Your task to perform on an android device: turn off smart reply in the gmail app Image 0: 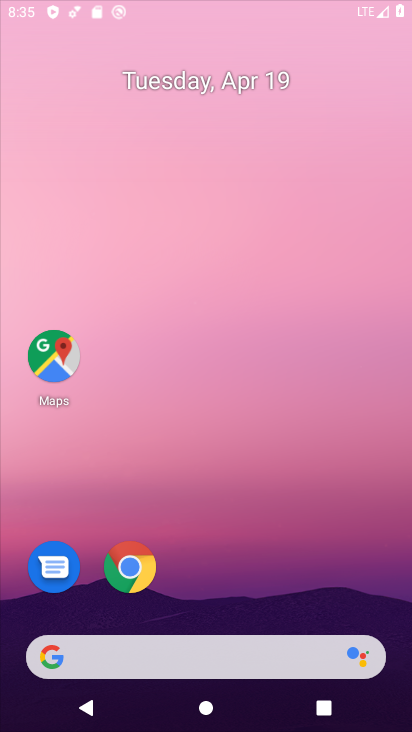
Step 0: drag from (247, 587) to (171, 60)
Your task to perform on an android device: turn off smart reply in the gmail app Image 1: 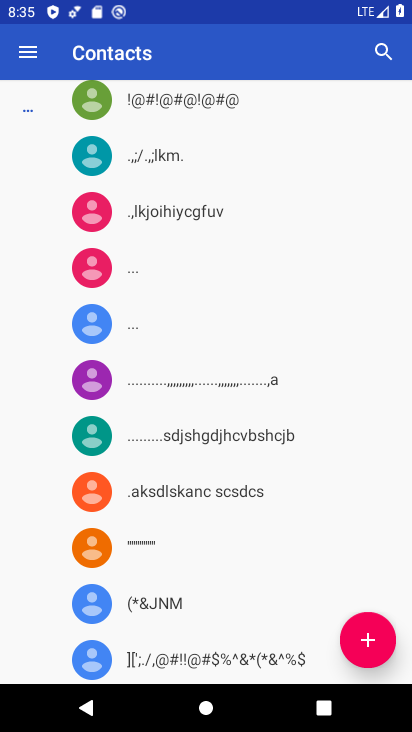
Step 1: press home button
Your task to perform on an android device: turn off smart reply in the gmail app Image 2: 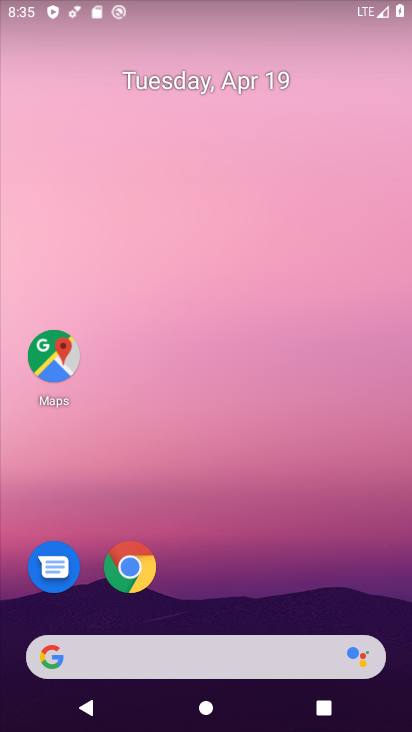
Step 2: drag from (239, 600) to (155, 36)
Your task to perform on an android device: turn off smart reply in the gmail app Image 3: 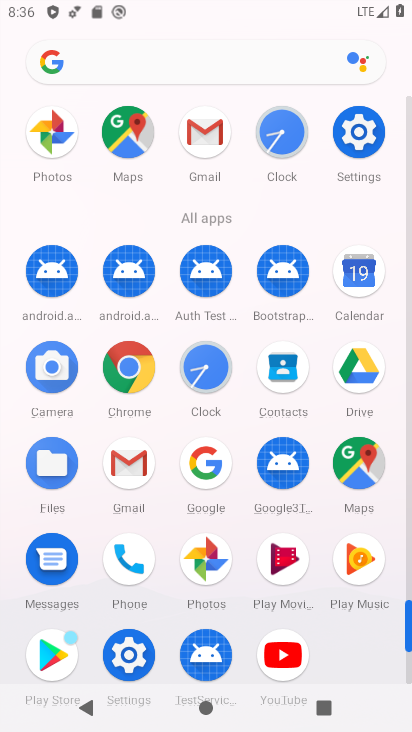
Step 3: click (203, 141)
Your task to perform on an android device: turn off smart reply in the gmail app Image 4: 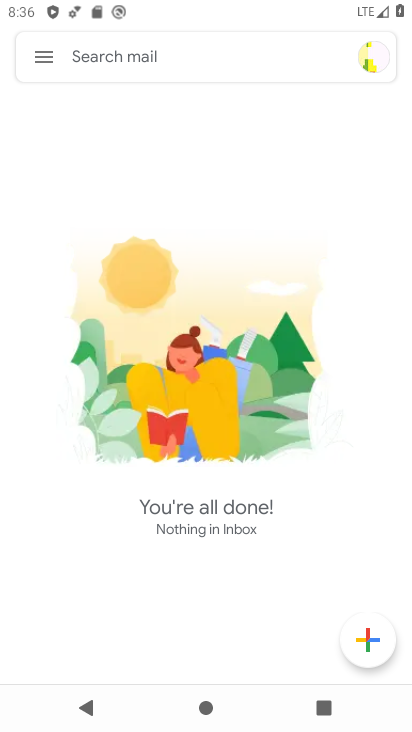
Step 4: click (38, 66)
Your task to perform on an android device: turn off smart reply in the gmail app Image 5: 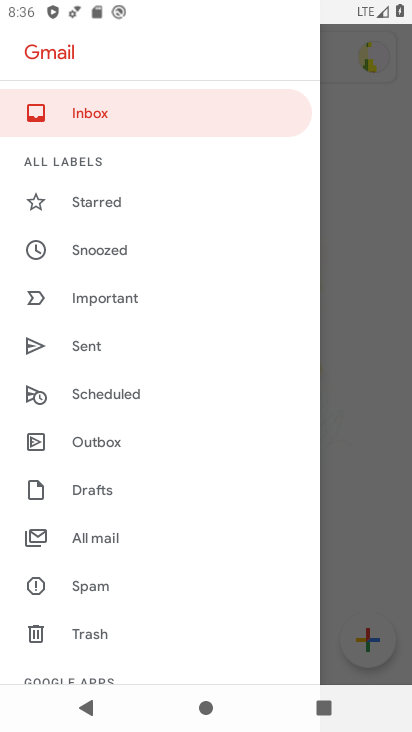
Step 5: drag from (116, 634) to (140, 99)
Your task to perform on an android device: turn off smart reply in the gmail app Image 6: 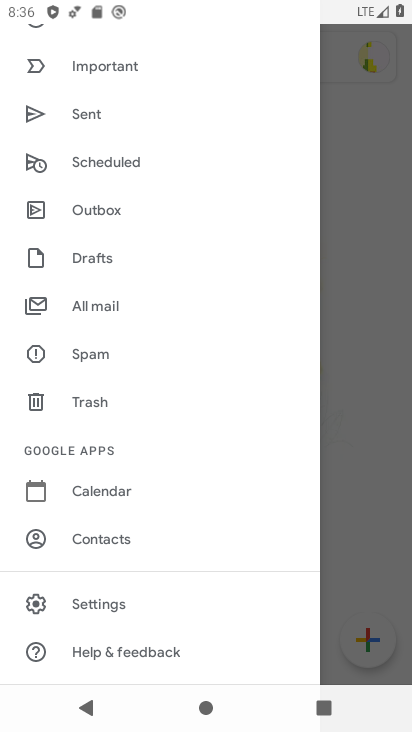
Step 6: click (76, 590)
Your task to perform on an android device: turn off smart reply in the gmail app Image 7: 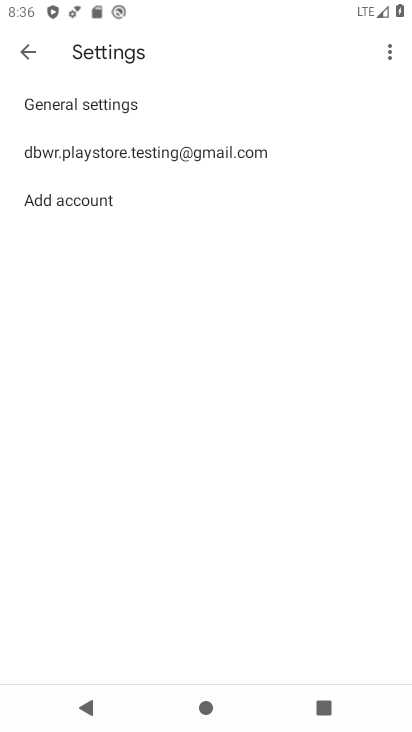
Step 7: click (145, 148)
Your task to perform on an android device: turn off smart reply in the gmail app Image 8: 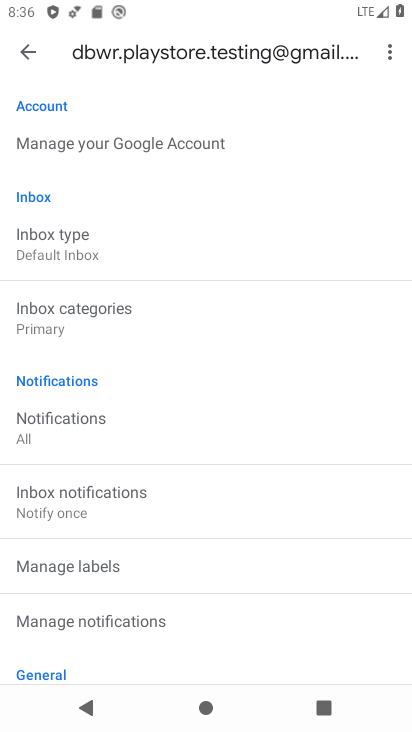
Step 8: drag from (194, 608) to (197, 116)
Your task to perform on an android device: turn off smart reply in the gmail app Image 9: 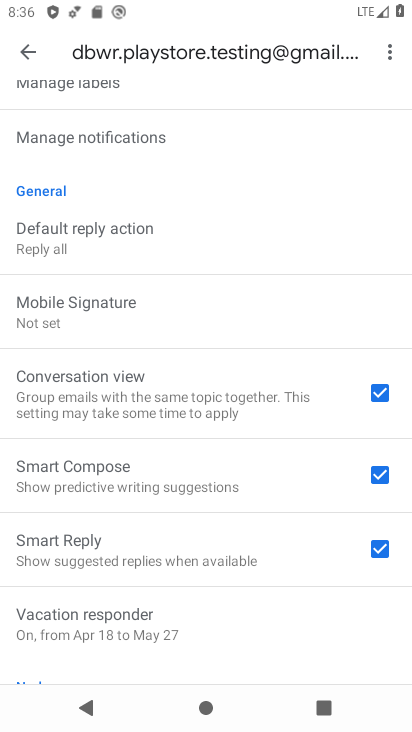
Step 9: click (105, 540)
Your task to perform on an android device: turn off smart reply in the gmail app Image 10: 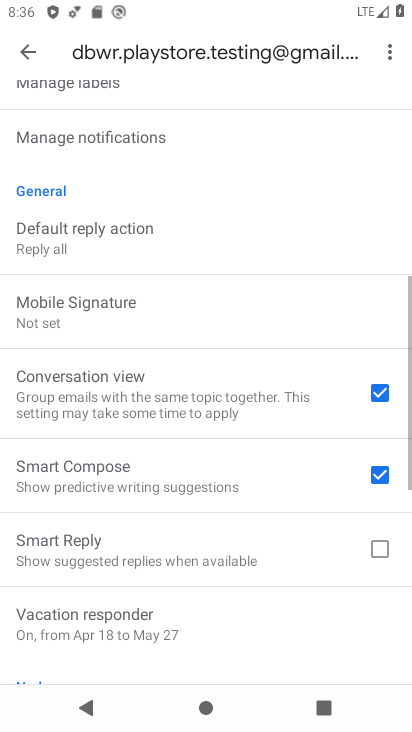
Step 10: task complete